Your task to perform on an android device: turn off notifications settings in the gmail app Image 0: 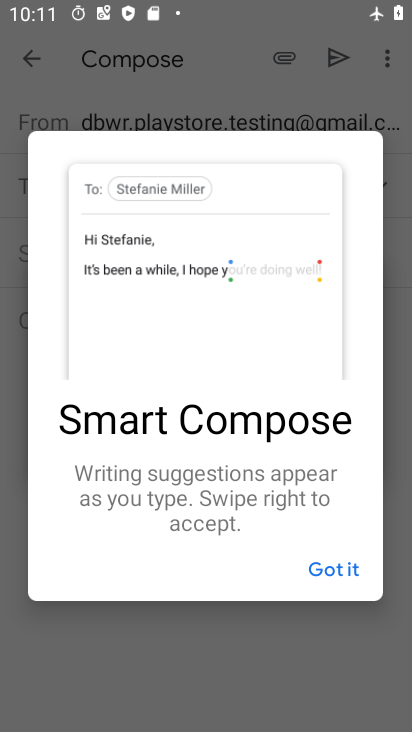
Step 0: press back button
Your task to perform on an android device: turn off notifications settings in the gmail app Image 1: 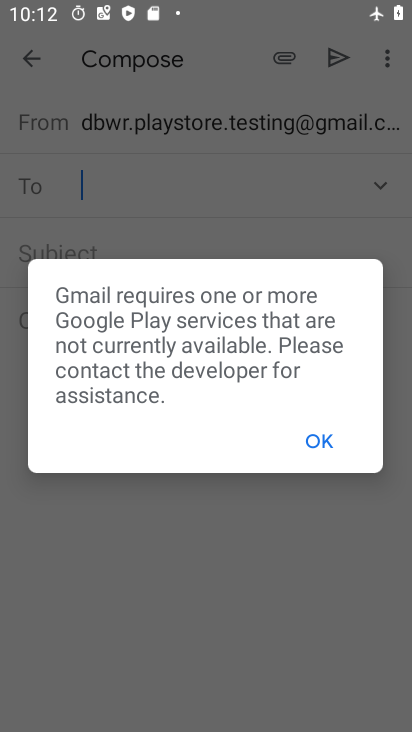
Step 1: press home button
Your task to perform on an android device: turn off notifications settings in the gmail app Image 2: 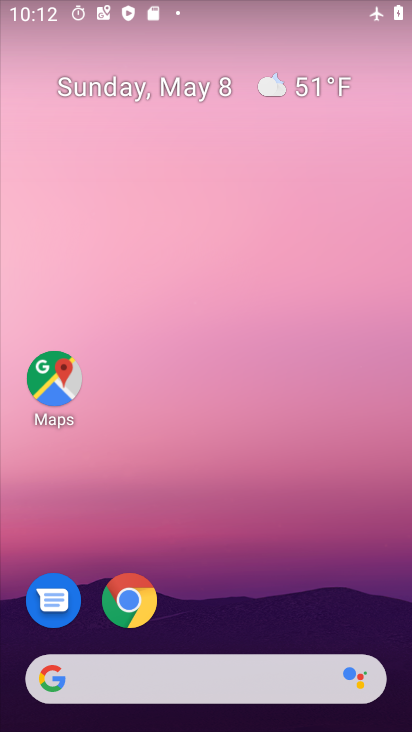
Step 2: drag from (228, 604) to (191, 18)
Your task to perform on an android device: turn off notifications settings in the gmail app Image 3: 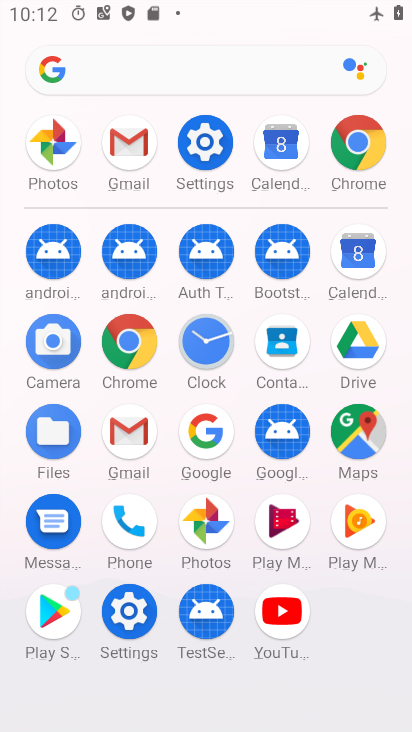
Step 3: drag from (7, 620) to (25, 382)
Your task to perform on an android device: turn off notifications settings in the gmail app Image 4: 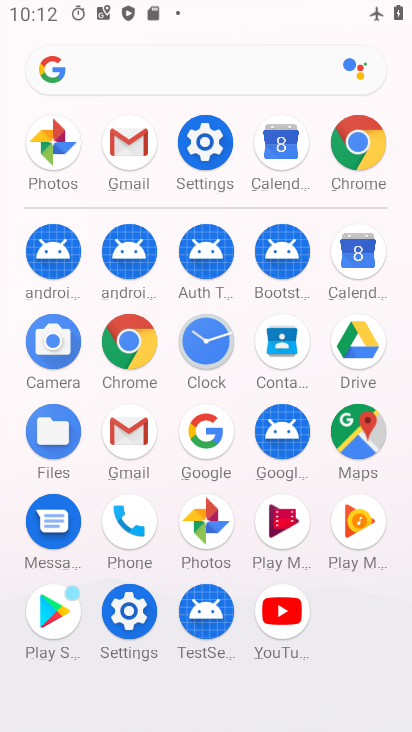
Step 4: click (128, 429)
Your task to perform on an android device: turn off notifications settings in the gmail app Image 5: 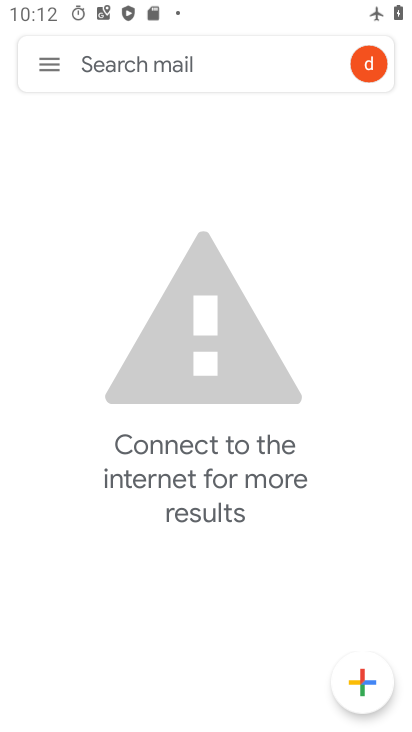
Step 5: click (51, 57)
Your task to perform on an android device: turn off notifications settings in the gmail app Image 6: 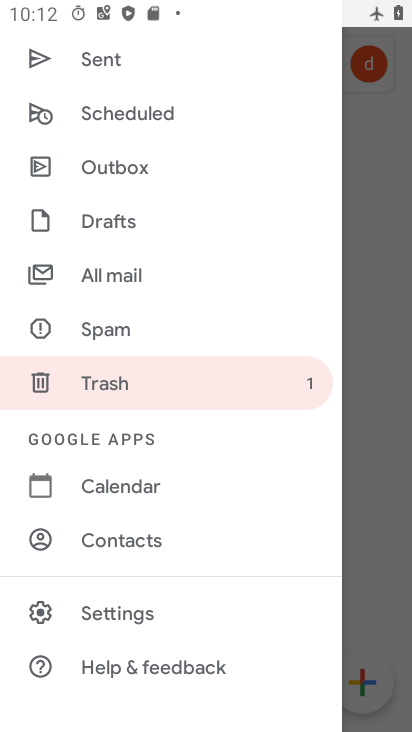
Step 6: click (142, 609)
Your task to perform on an android device: turn off notifications settings in the gmail app Image 7: 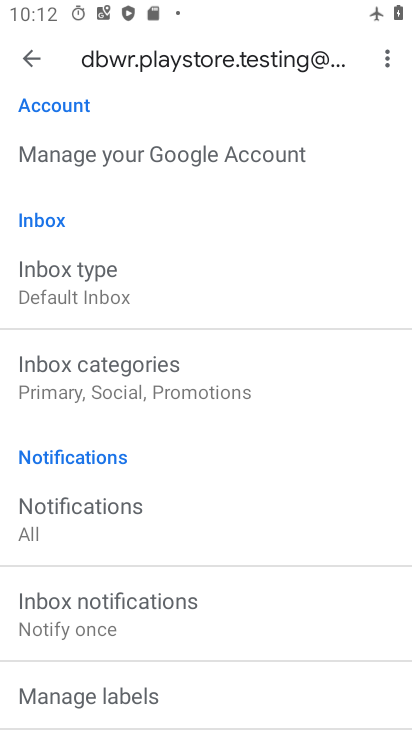
Step 7: drag from (252, 570) to (249, 182)
Your task to perform on an android device: turn off notifications settings in the gmail app Image 8: 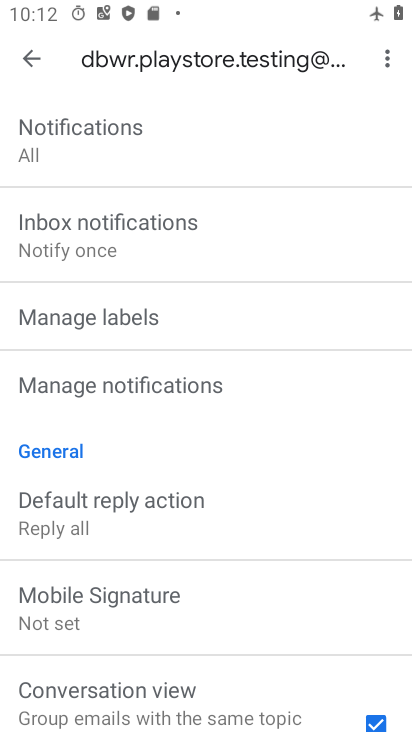
Step 8: click (156, 384)
Your task to perform on an android device: turn off notifications settings in the gmail app Image 9: 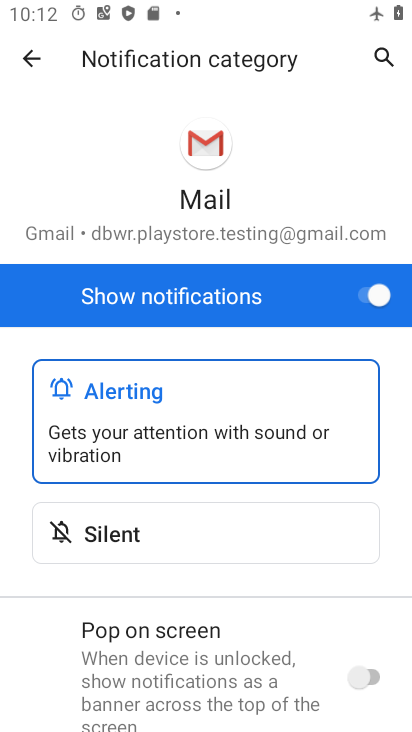
Step 9: drag from (215, 609) to (263, 155)
Your task to perform on an android device: turn off notifications settings in the gmail app Image 10: 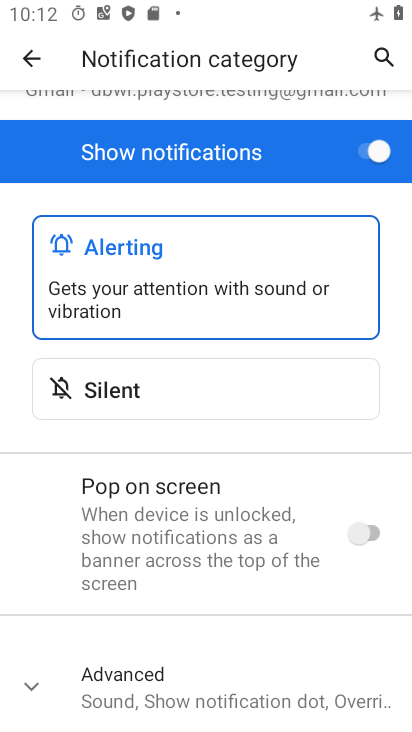
Step 10: drag from (283, 175) to (319, 524)
Your task to perform on an android device: turn off notifications settings in the gmail app Image 11: 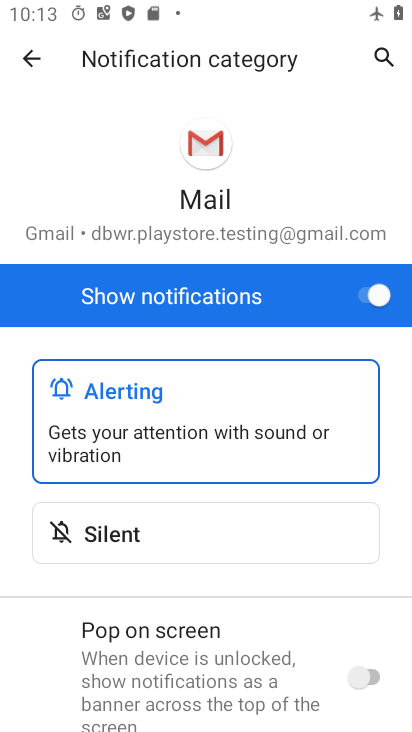
Step 11: click (365, 290)
Your task to perform on an android device: turn off notifications settings in the gmail app Image 12: 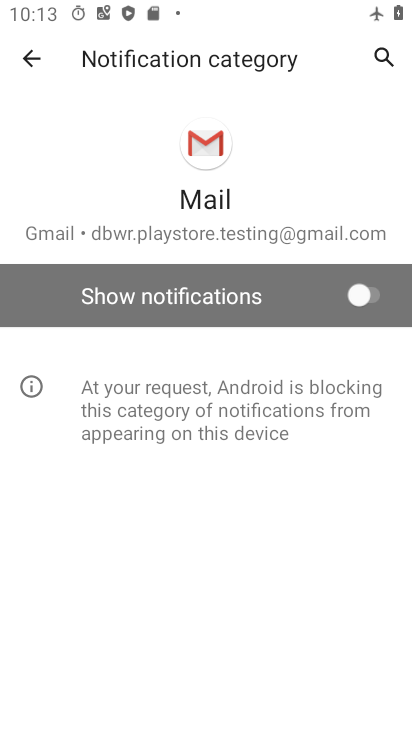
Step 12: task complete